Your task to perform on an android device: Open internet settings Image 0: 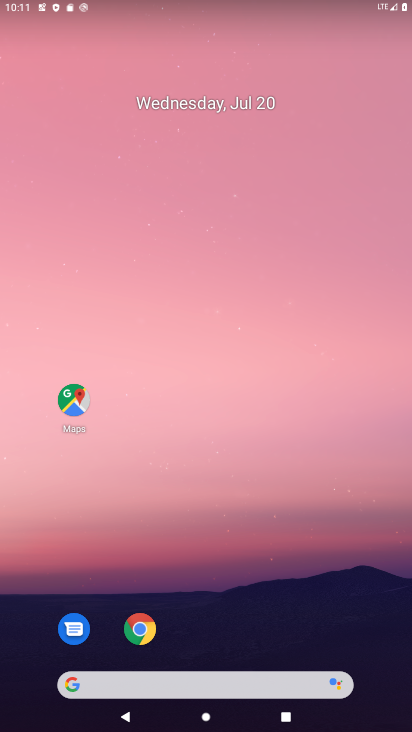
Step 0: drag from (382, 633) to (339, 13)
Your task to perform on an android device: Open internet settings Image 1: 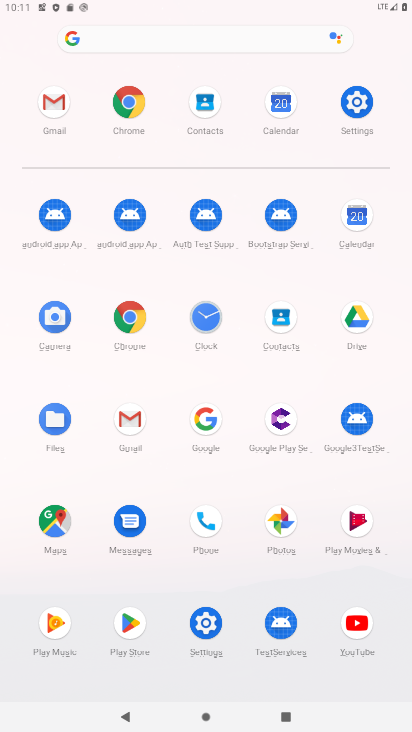
Step 1: click (350, 108)
Your task to perform on an android device: Open internet settings Image 2: 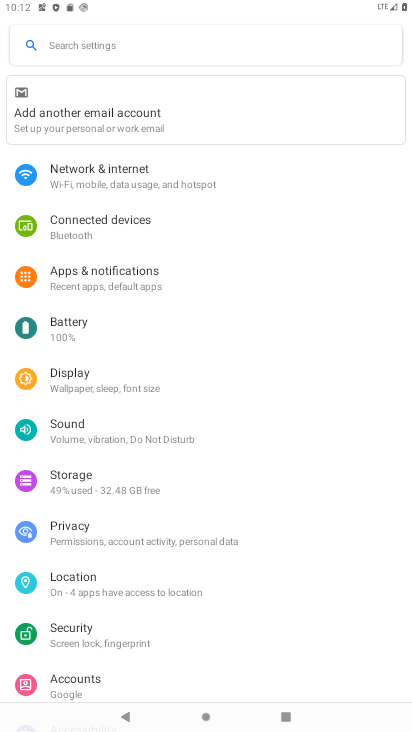
Step 2: click (72, 190)
Your task to perform on an android device: Open internet settings Image 3: 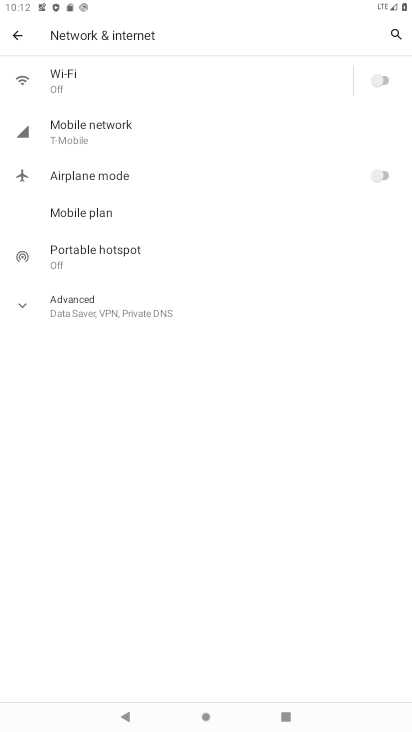
Step 3: task complete